Your task to perform on an android device: search for starred emails in the gmail app Image 0: 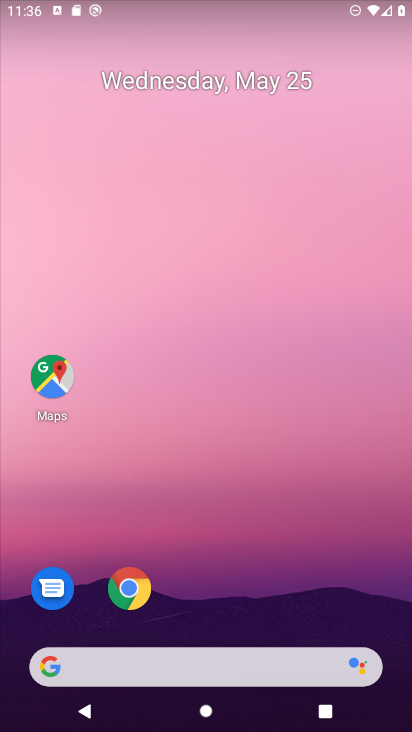
Step 0: press home button
Your task to perform on an android device: search for starred emails in the gmail app Image 1: 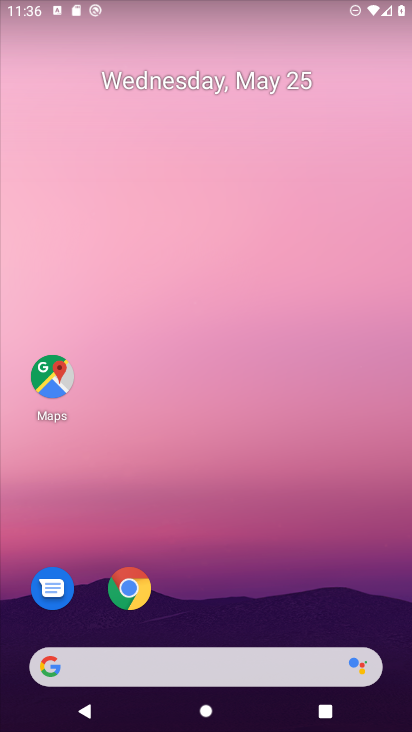
Step 1: drag from (24, 572) to (203, 267)
Your task to perform on an android device: search for starred emails in the gmail app Image 2: 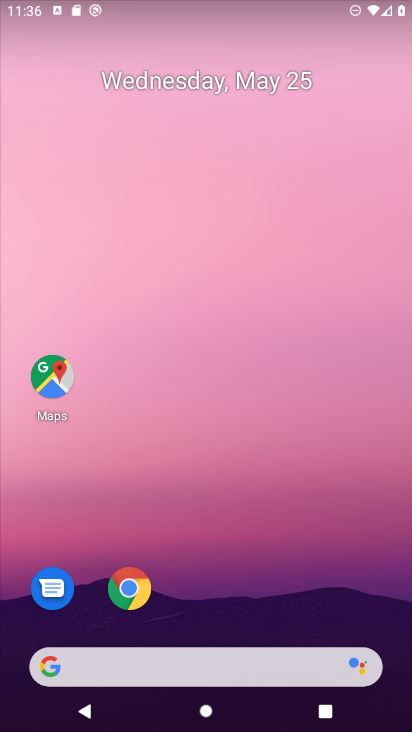
Step 2: drag from (21, 544) to (221, 215)
Your task to perform on an android device: search for starred emails in the gmail app Image 3: 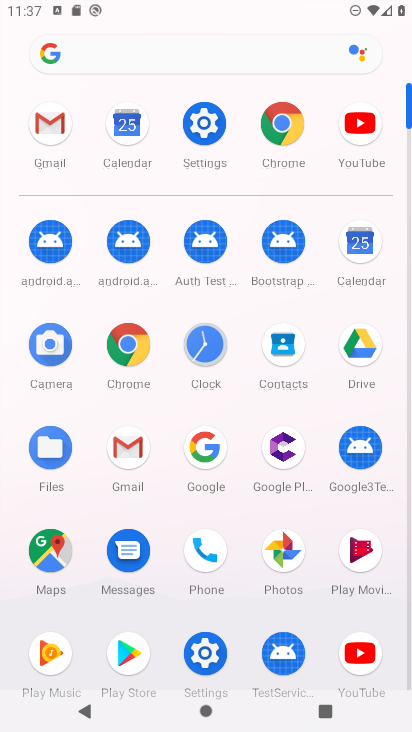
Step 3: click (132, 440)
Your task to perform on an android device: search for starred emails in the gmail app Image 4: 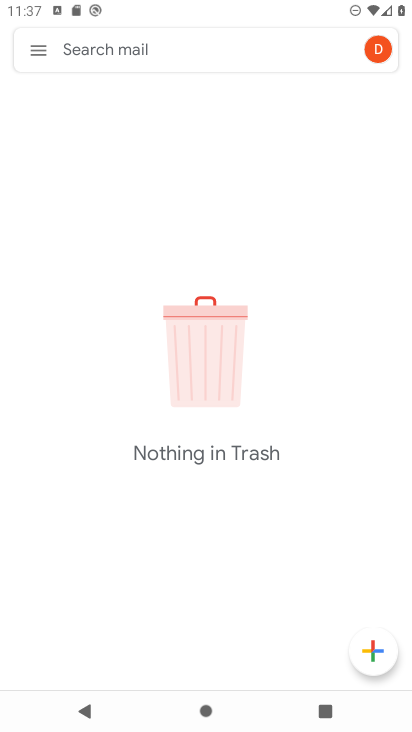
Step 4: click (40, 48)
Your task to perform on an android device: search for starred emails in the gmail app Image 5: 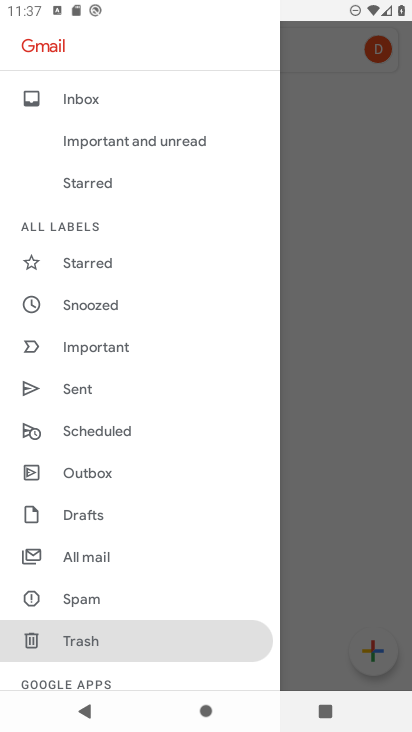
Step 5: click (96, 260)
Your task to perform on an android device: search for starred emails in the gmail app Image 6: 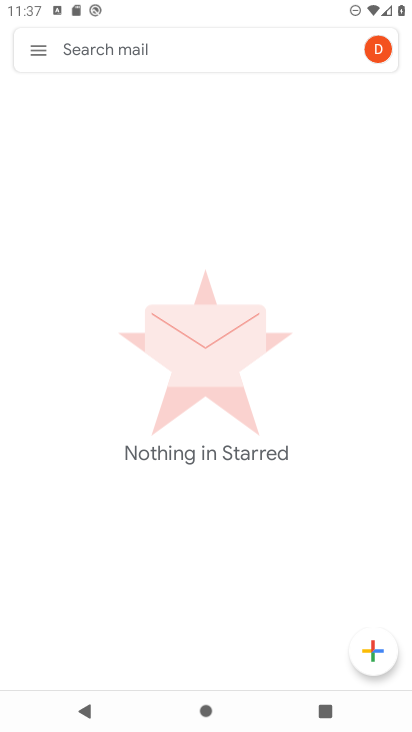
Step 6: task complete